Your task to perform on an android device: Open the calendar and show me this week's events? Image 0: 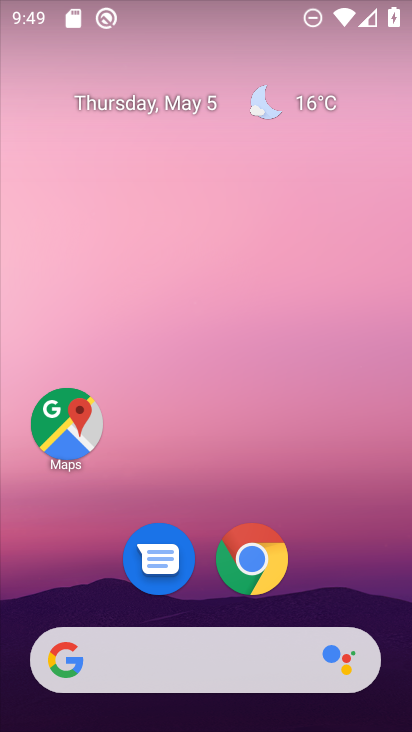
Step 0: drag from (347, 616) to (352, 3)
Your task to perform on an android device: Open the calendar and show me this week's events? Image 1: 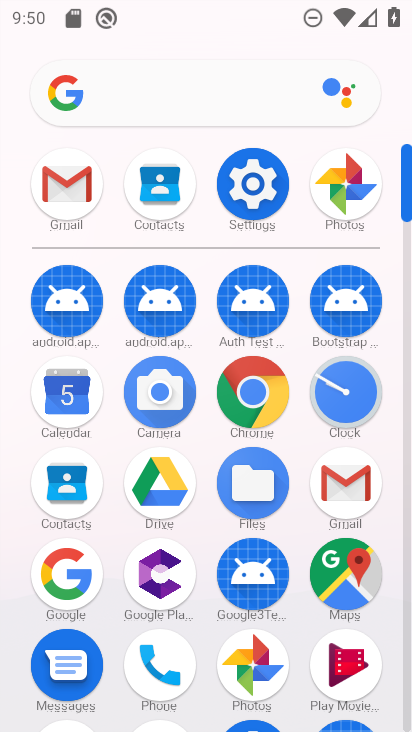
Step 1: click (61, 395)
Your task to perform on an android device: Open the calendar and show me this week's events? Image 2: 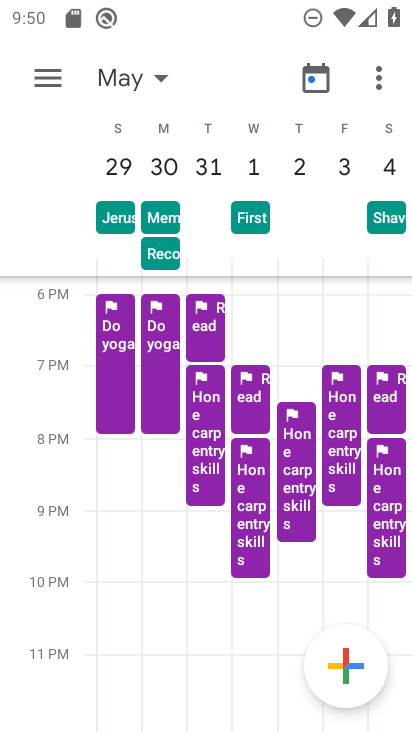
Step 2: click (57, 80)
Your task to perform on an android device: Open the calendar and show me this week's events? Image 3: 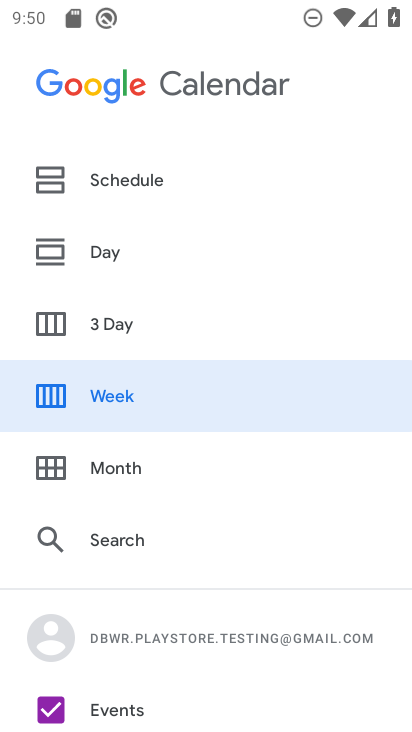
Step 3: drag from (202, 626) to (200, 259)
Your task to perform on an android device: Open the calendar and show me this week's events? Image 4: 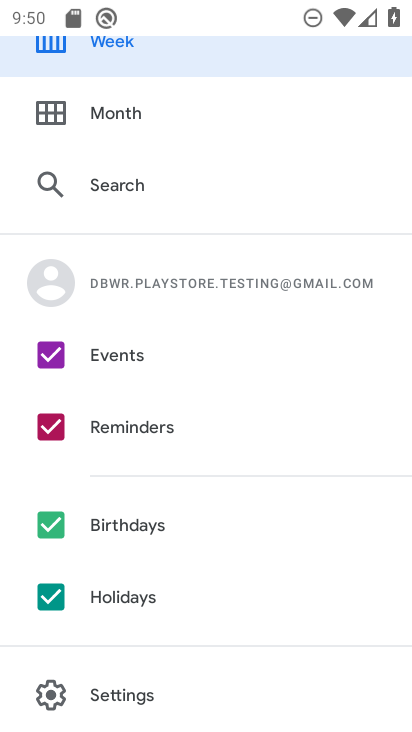
Step 4: click (49, 434)
Your task to perform on an android device: Open the calendar and show me this week's events? Image 5: 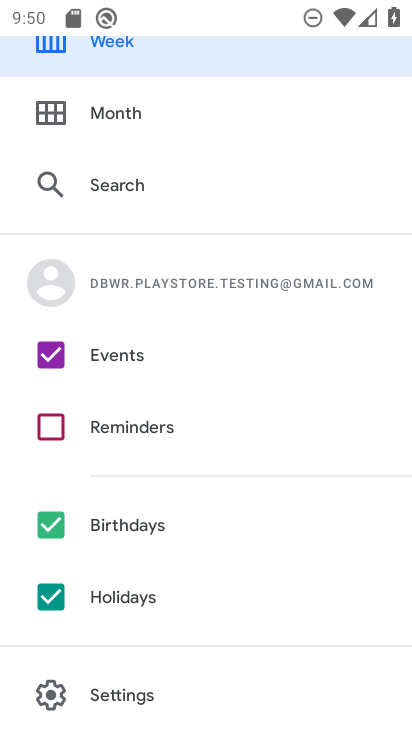
Step 5: click (58, 533)
Your task to perform on an android device: Open the calendar and show me this week's events? Image 6: 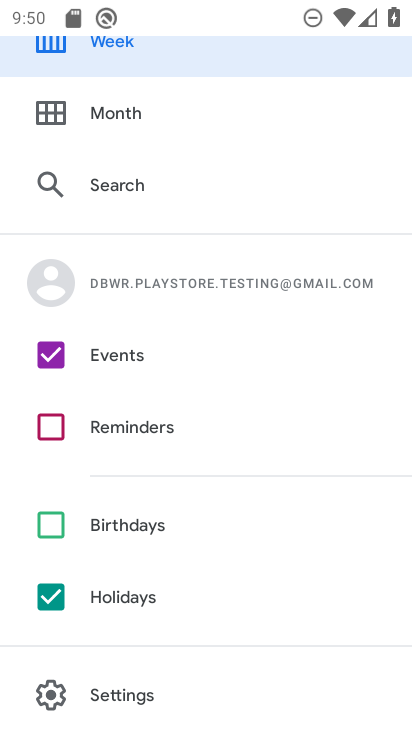
Step 6: click (53, 600)
Your task to perform on an android device: Open the calendar and show me this week's events? Image 7: 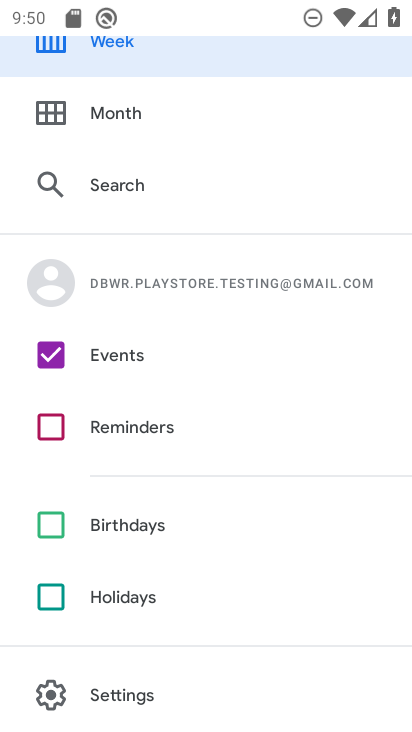
Step 7: drag from (184, 375) to (179, 642)
Your task to perform on an android device: Open the calendar and show me this week's events? Image 8: 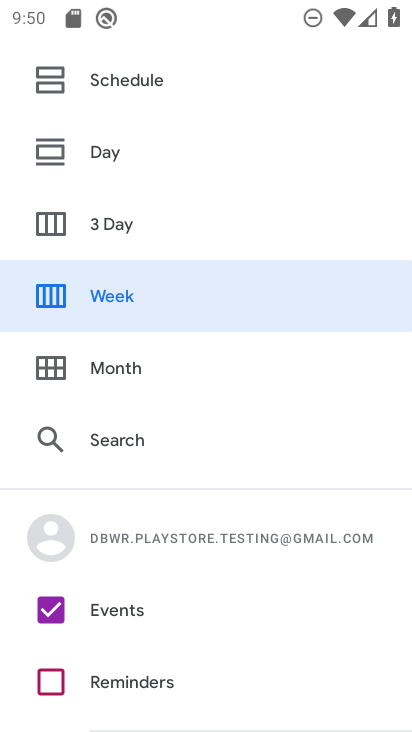
Step 8: click (113, 87)
Your task to perform on an android device: Open the calendar and show me this week's events? Image 9: 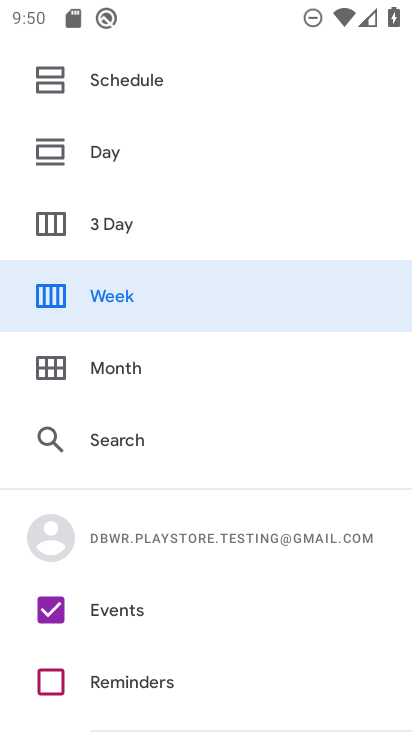
Step 9: click (97, 81)
Your task to perform on an android device: Open the calendar and show me this week's events? Image 10: 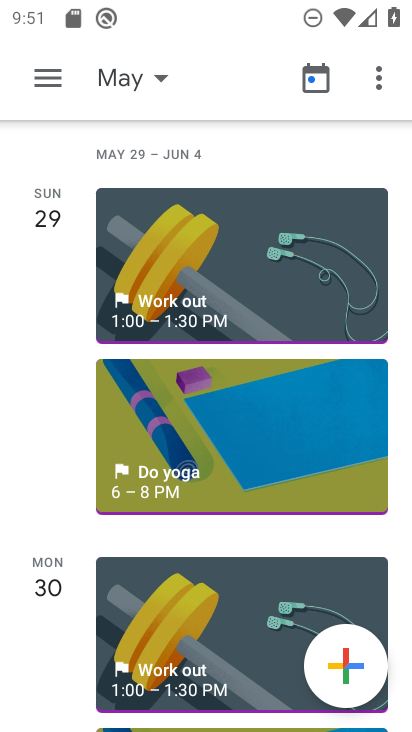
Step 10: click (49, 80)
Your task to perform on an android device: Open the calendar and show me this week's events? Image 11: 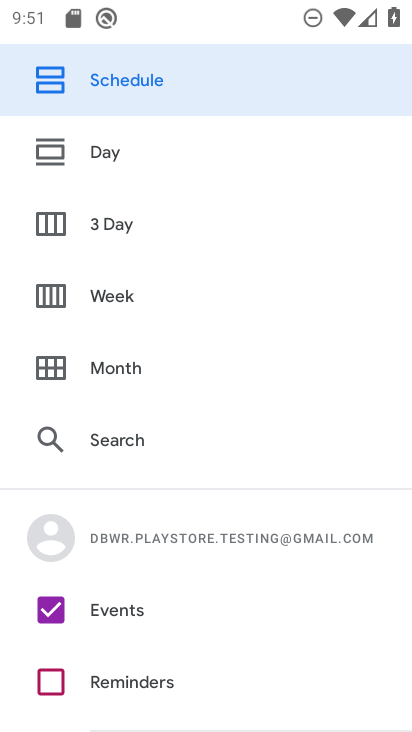
Step 11: click (98, 293)
Your task to perform on an android device: Open the calendar and show me this week's events? Image 12: 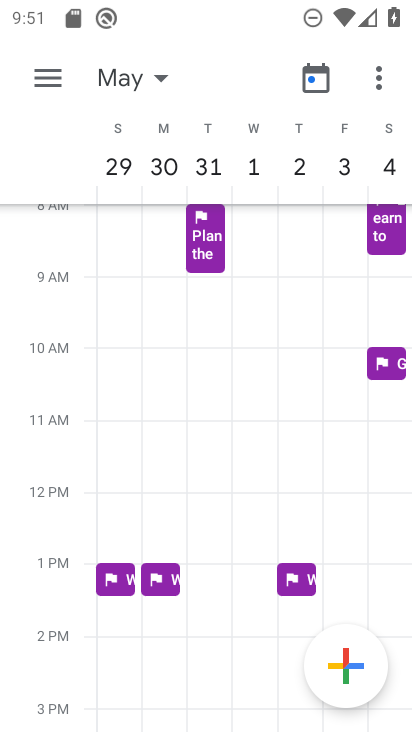
Step 12: task complete